Your task to perform on an android device: Go to Google Image 0: 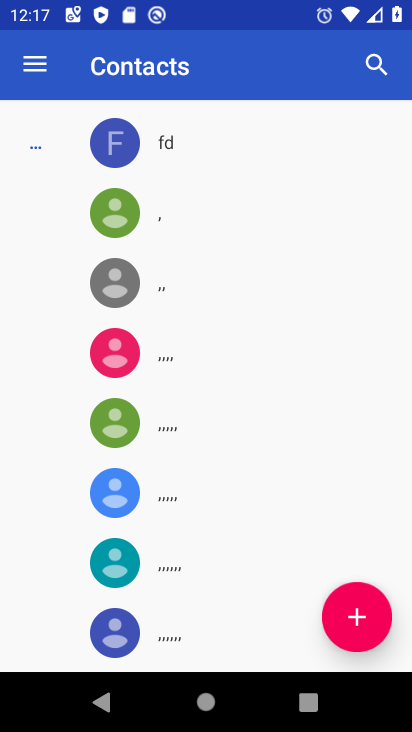
Step 0: press home button
Your task to perform on an android device: Go to Google Image 1: 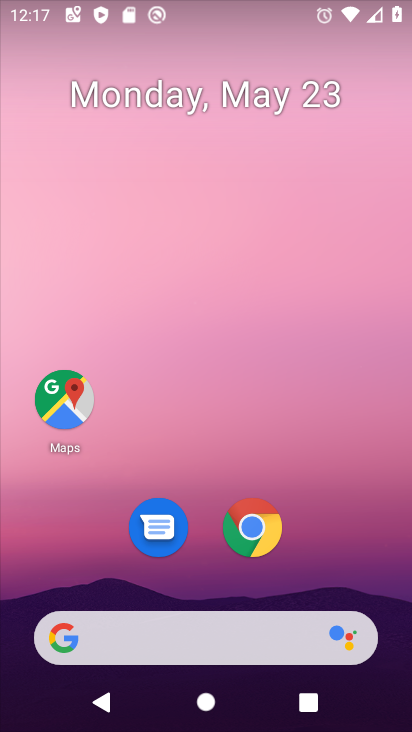
Step 1: click (237, 538)
Your task to perform on an android device: Go to Google Image 2: 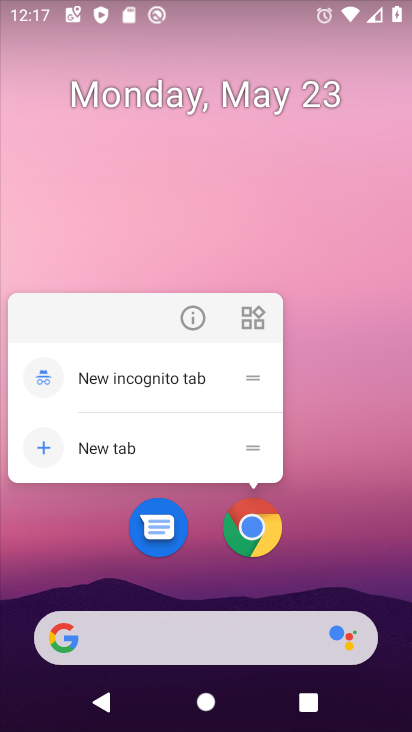
Step 2: click (187, 626)
Your task to perform on an android device: Go to Google Image 3: 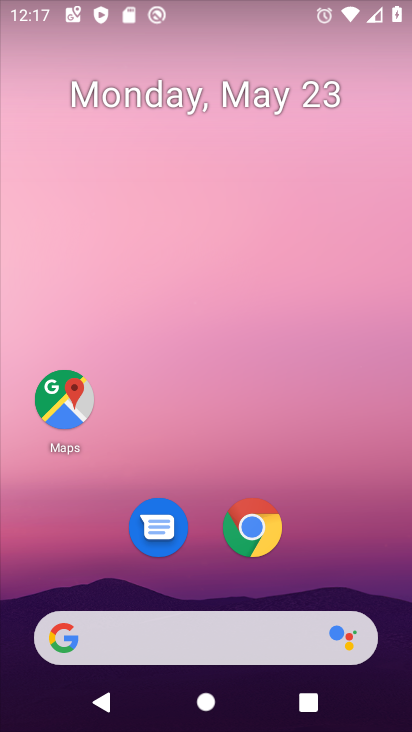
Step 3: click (187, 626)
Your task to perform on an android device: Go to Google Image 4: 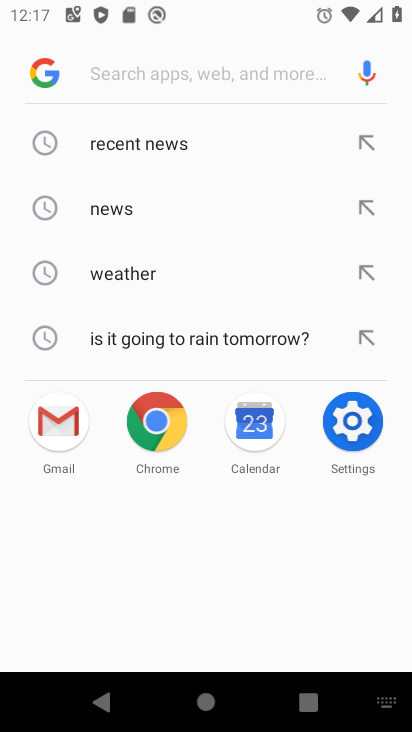
Step 4: type "google.com"
Your task to perform on an android device: Go to Google Image 5: 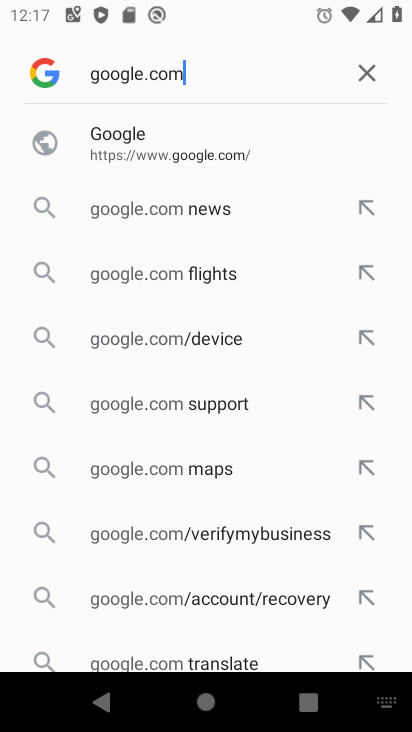
Step 5: click (199, 133)
Your task to perform on an android device: Go to Google Image 6: 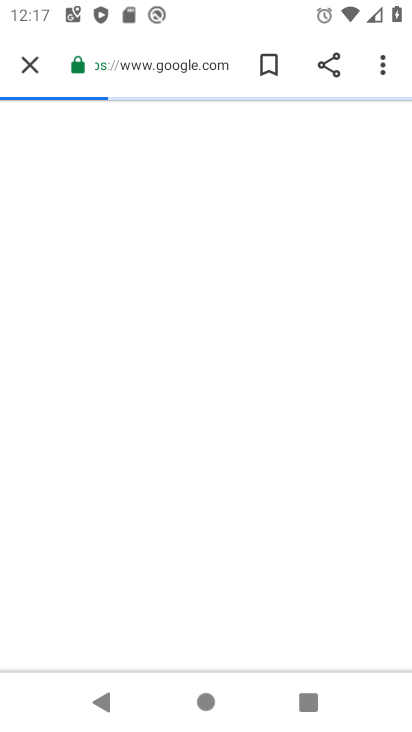
Step 6: task complete